Your task to perform on an android device: Open settings on Google Maps Image 0: 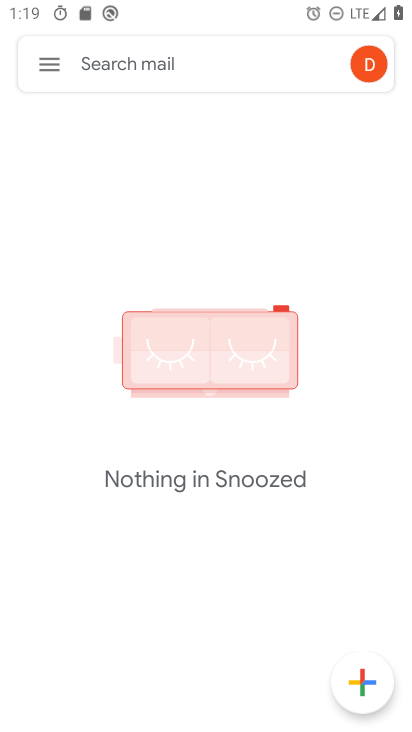
Step 0: press home button
Your task to perform on an android device: Open settings on Google Maps Image 1: 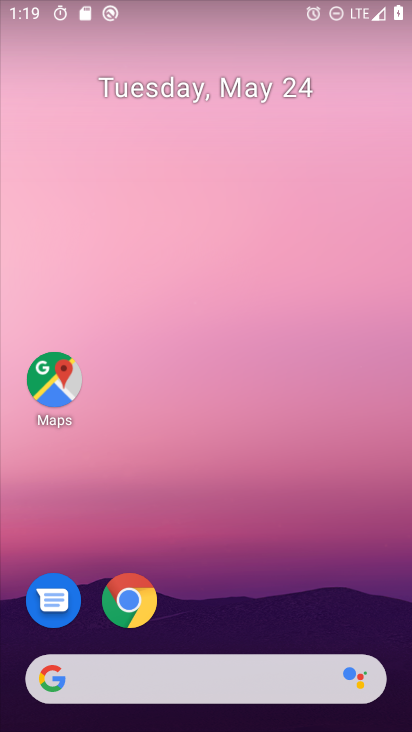
Step 1: drag from (225, 485) to (203, 562)
Your task to perform on an android device: Open settings on Google Maps Image 2: 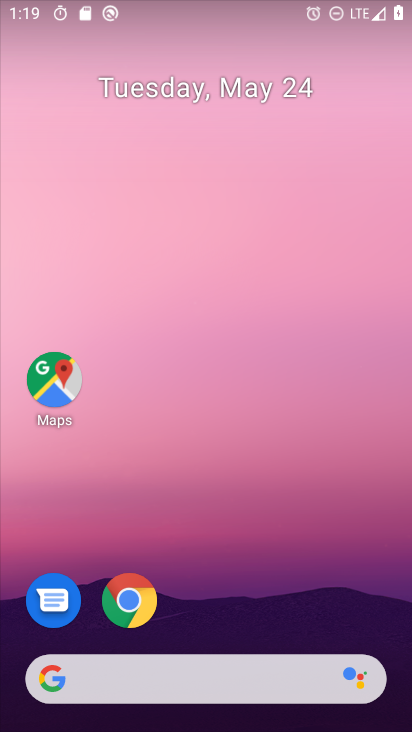
Step 2: click (55, 386)
Your task to perform on an android device: Open settings on Google Maps Image 3: 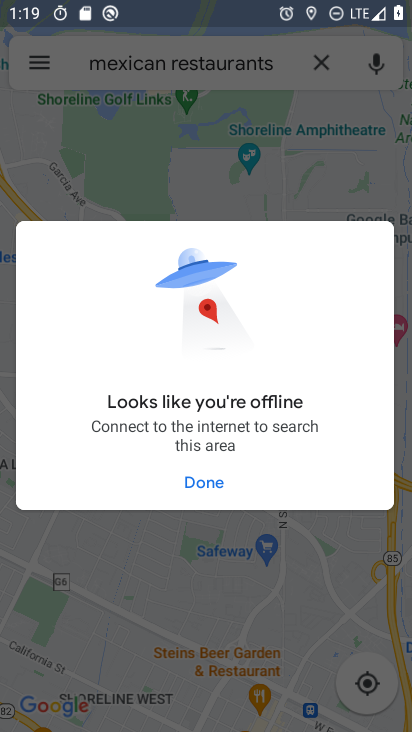
Step 3: click (205, 487)
Your task to perform on an android device: Open settings on Google Maps Image 4: 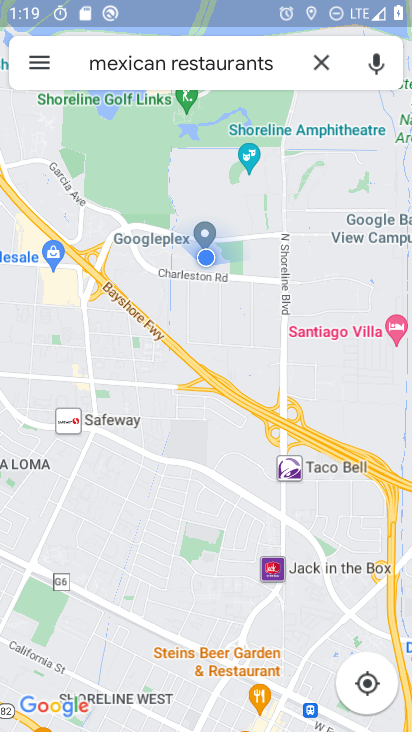
Step 4: click (31, 61)
Your task to perform on an android device: Open settings on Google Maps Image 5: 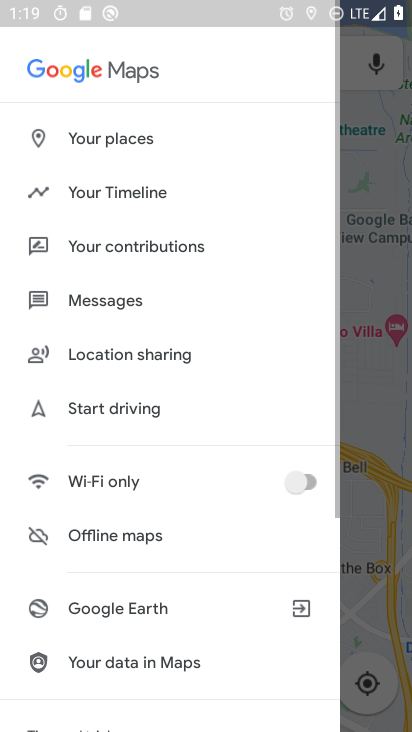
Step 5: drag from (72, 665) to (165, 278)
Your task to perform on an android device: Open settings on Google Maps Image 6: 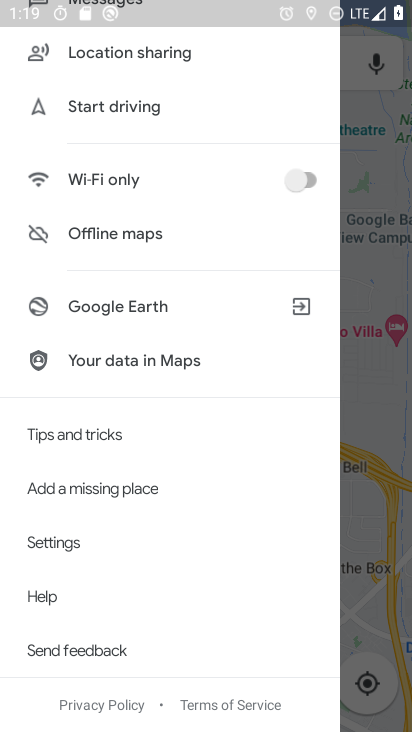
Step 6: click (72, 540)
Your task to perform on an android device: Open settings on Google Maps Image 7: 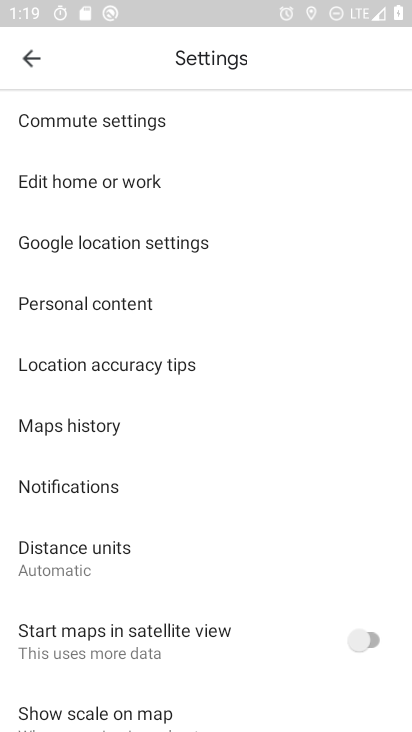
Step 7: task complete